Your task to perform on an android device: What is the news today? Image 0: 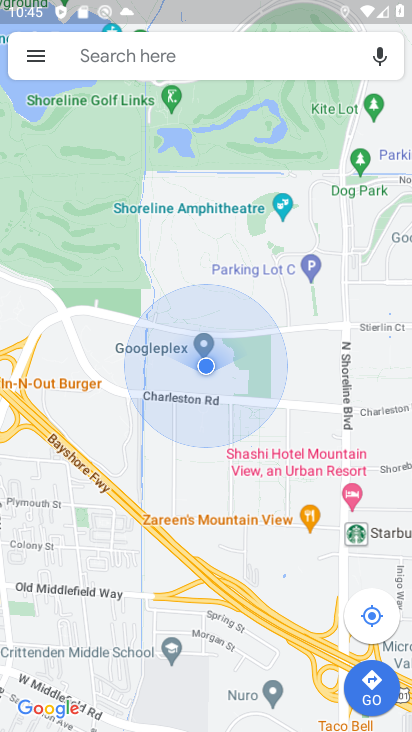
Step 0: press home button
Your task to perform on an android device: What is the news today? Image 1: 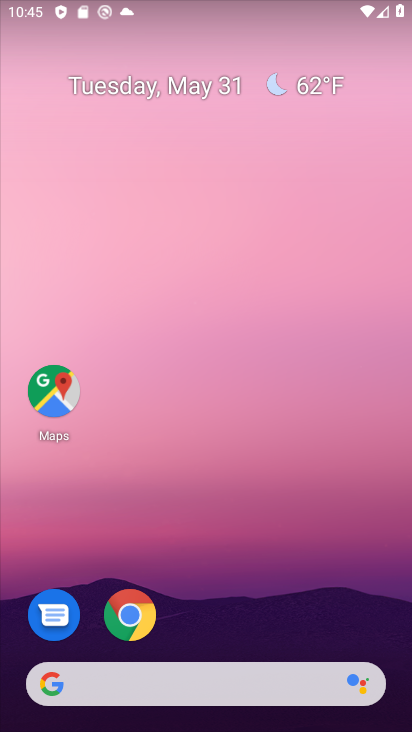
Step 1: drag from (220, 680) to (228, 224)
Your task to perform on an android device: What is the news today? Image 2: 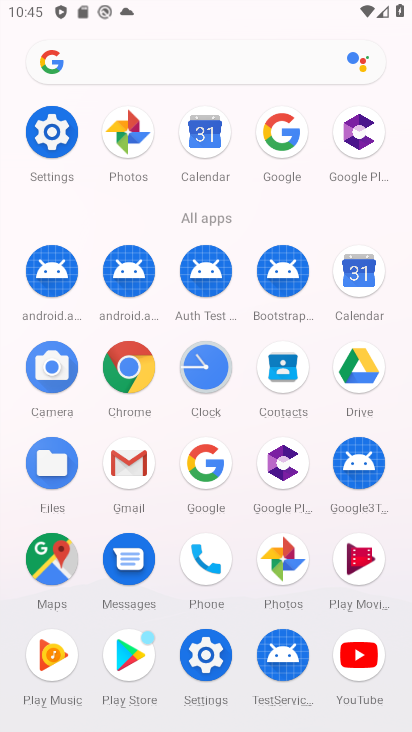
Step 2: click (194, 464)
Your task to perform on an android device: What is the news today? Image 3: 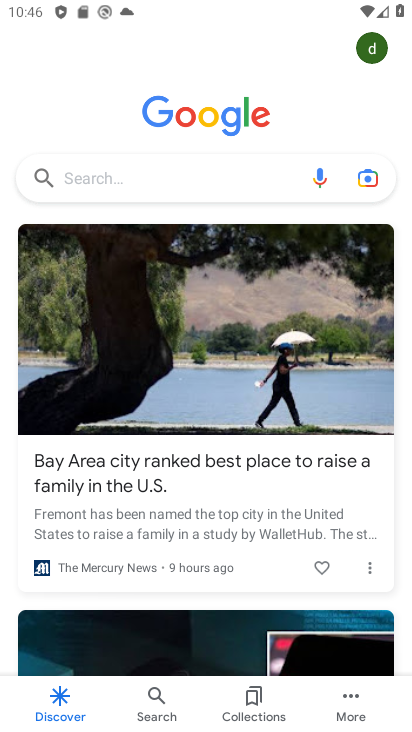
Step 3: task complete